Your task to perform on an android device: Go to display settings Image 0: 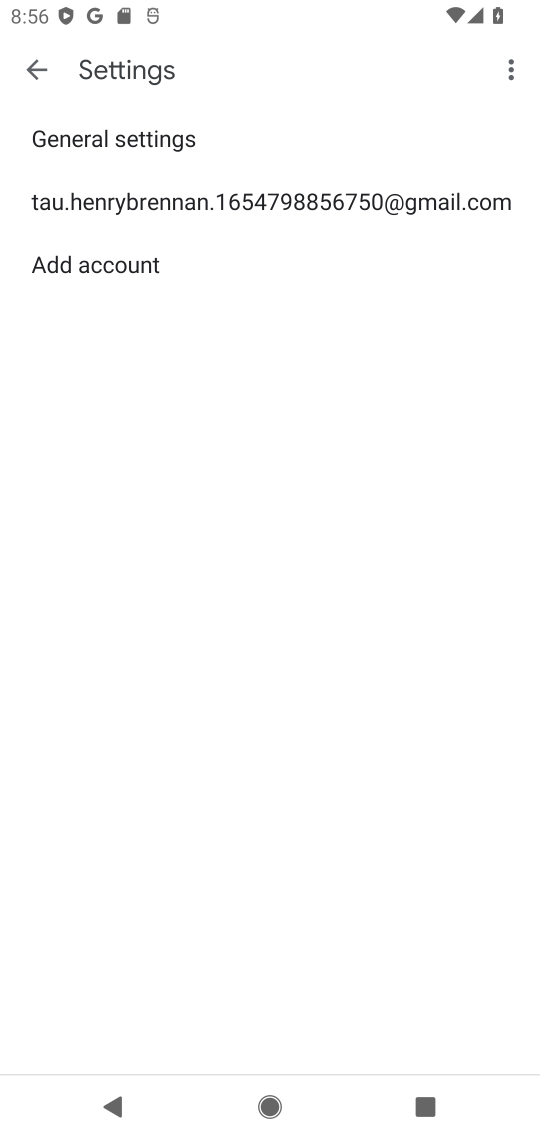
Step 0: press home button
Your task to perform on an android device: Go to display settings Image 1: 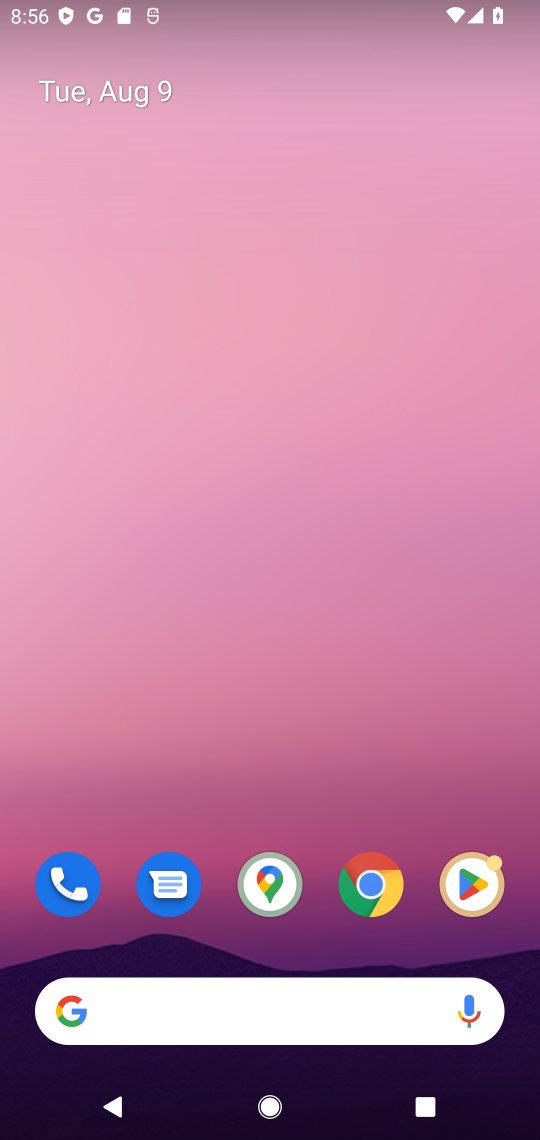
Step 1: drag from (215, 904) to (277, 636)
Your task to perform on an android device: Go to display settings Image 2: 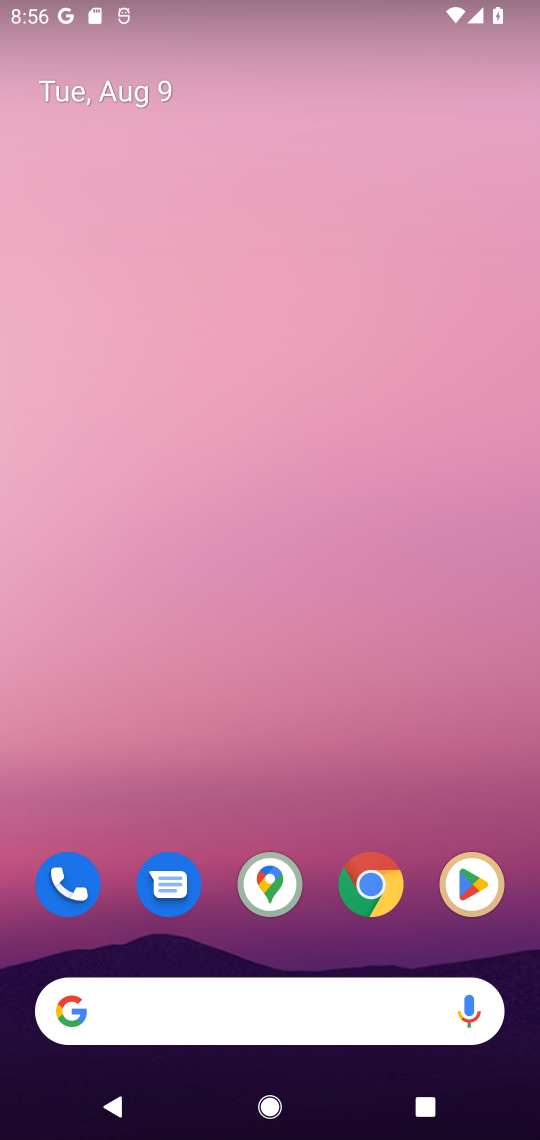
Step 2: drag from (225, 958) to (306, 268)
Your task to perform on an android device: Go to display settings Image 3: 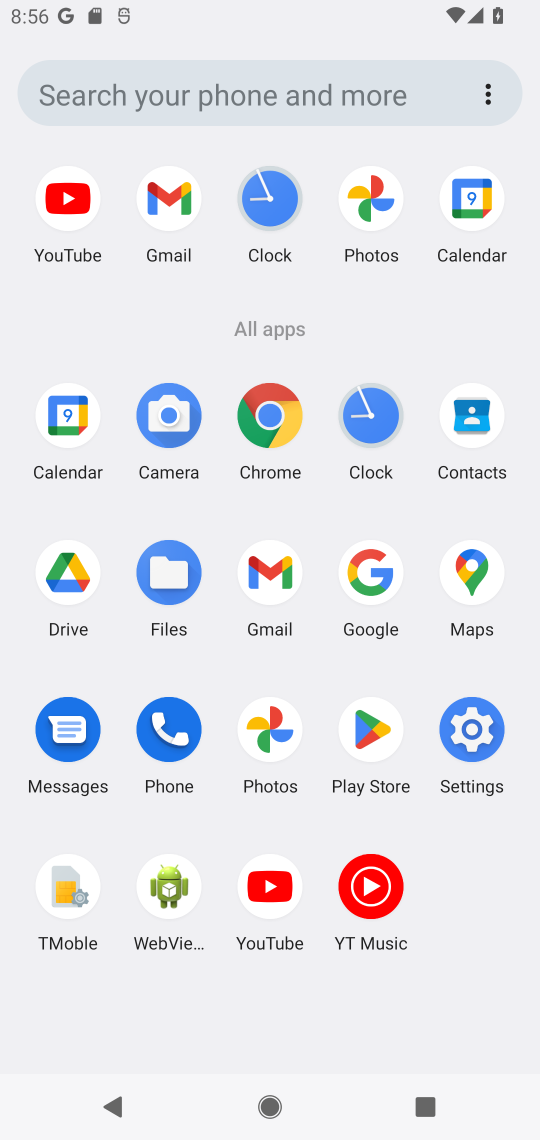
Step 3: click (476, 733)
Your task to perform on an android device: Go to display settings Image 4: 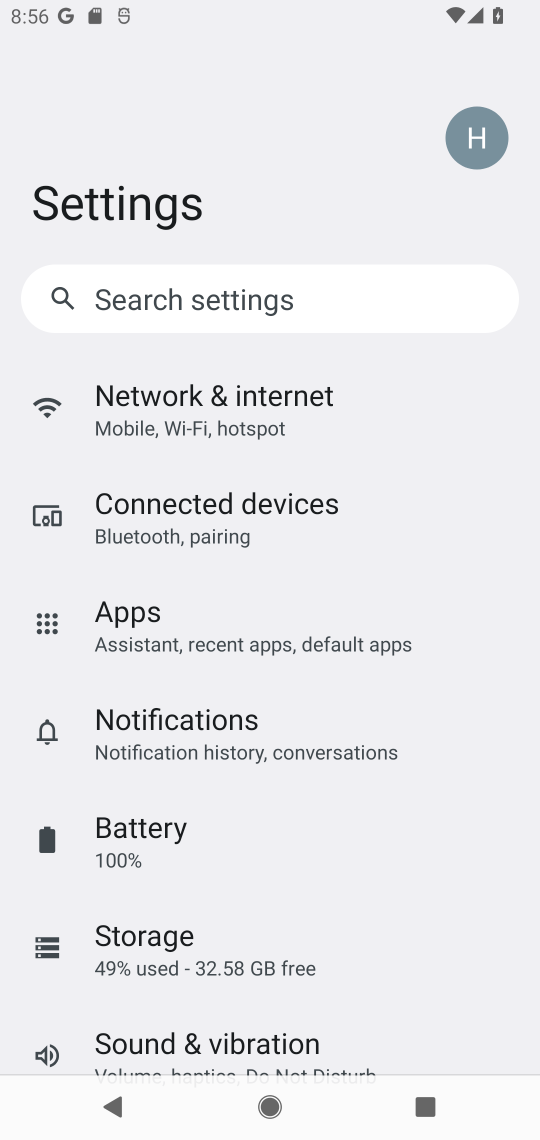
Step 4: drag from (225, 994) to (367, 389)
Your task to perform on an android device: Go to display settings Image 5: 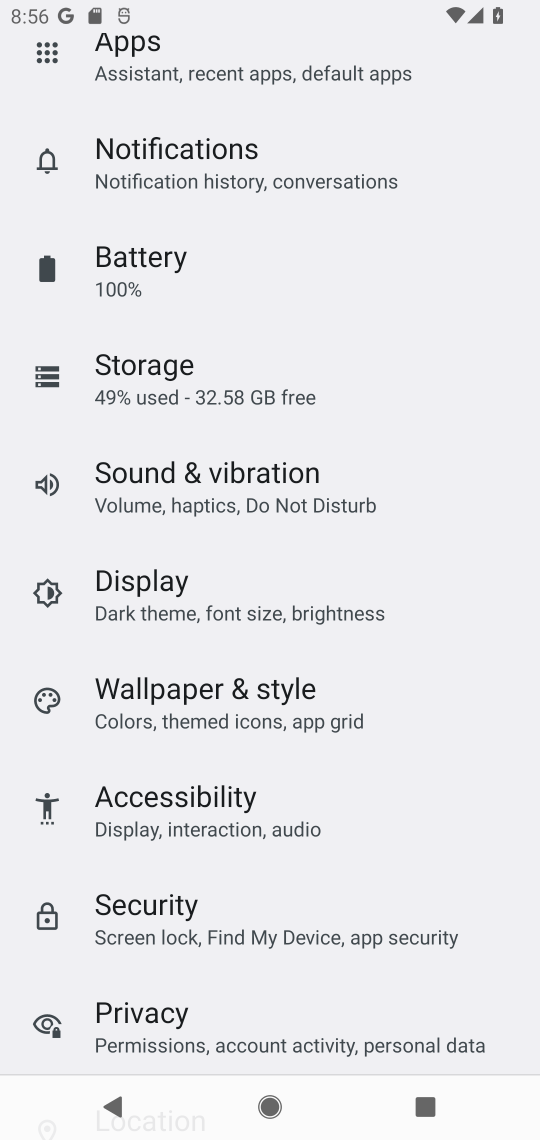
Step 5: click (158, 729)
Your task to perform on an android device: Go to display settings Image 6: 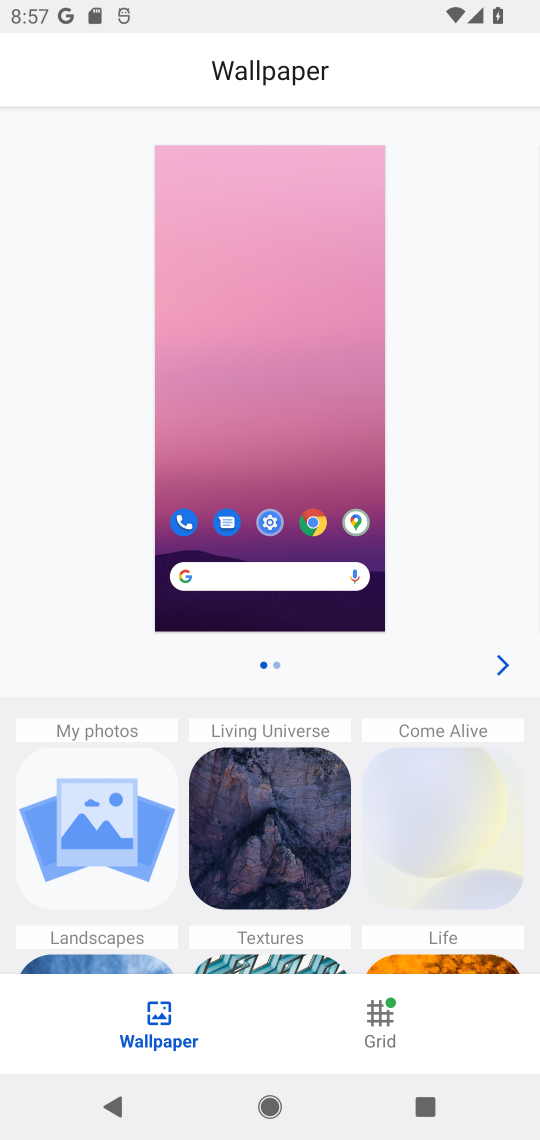
Step 6: click (135, 1105)
Your task to perform on an android device: Go to display settings Image 7: 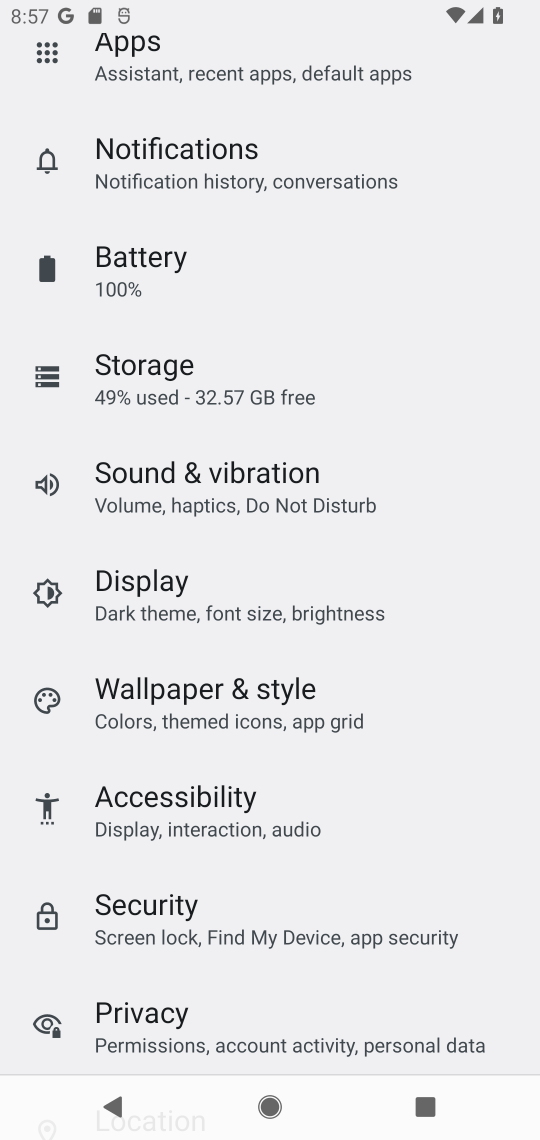
Step 7: click (173, 585)
Your task to perform on an android device: Go to display settings Image 8: 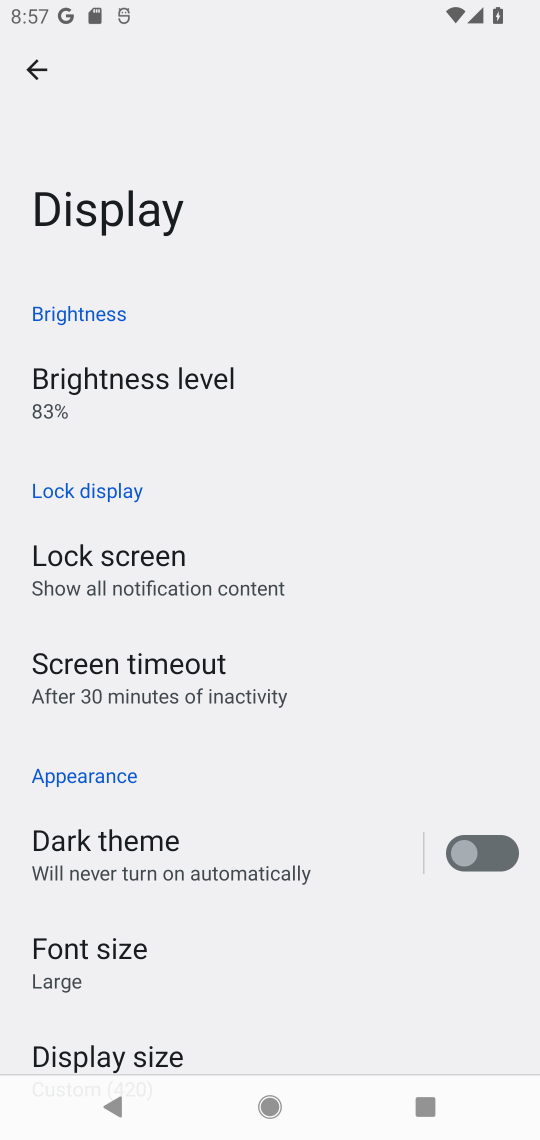
Step 8: task complete